Your task to perform on an android device: turn off priority inbox in the gmail app Image 0: 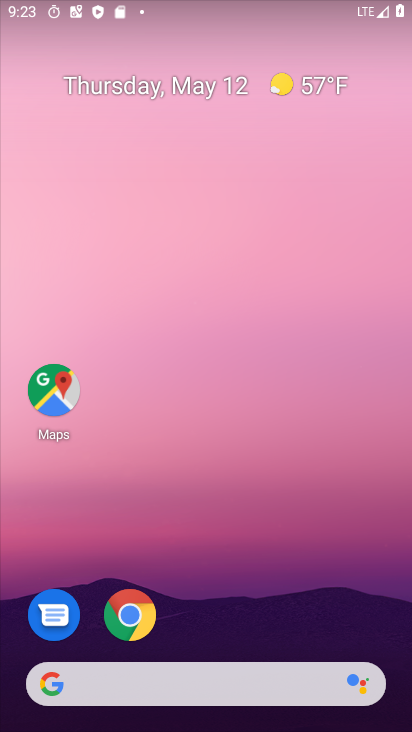
Step 0: drag from (251, 536) to (223, 21)
Your task to perform on an android device: turn off priority inbox in the gmail app Image 1: 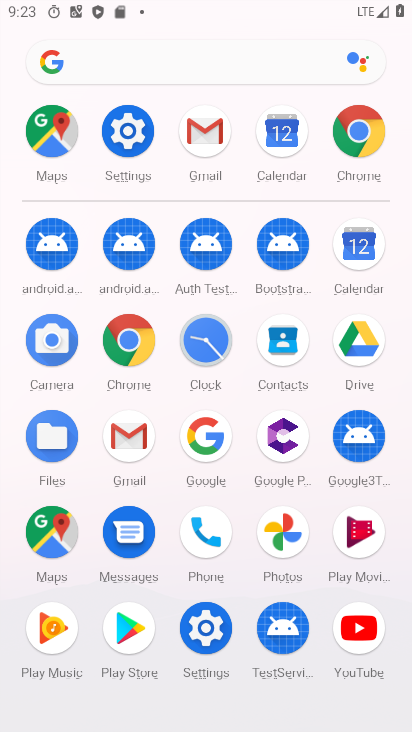
Step 1: drag from (11, 546) to (2, 211)
Your task to perform on an android device: turn off priority inbox in the gmail app Image 2: 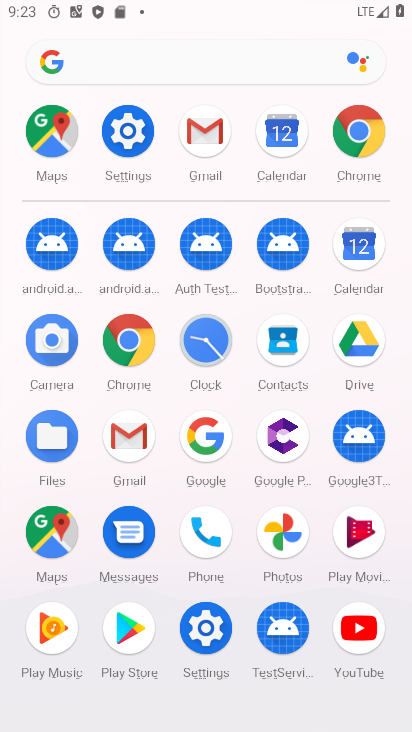
Step 2: click (128, 430)
Your task to perform on an android device: turn off priority inbox in the gmail app Image 3: 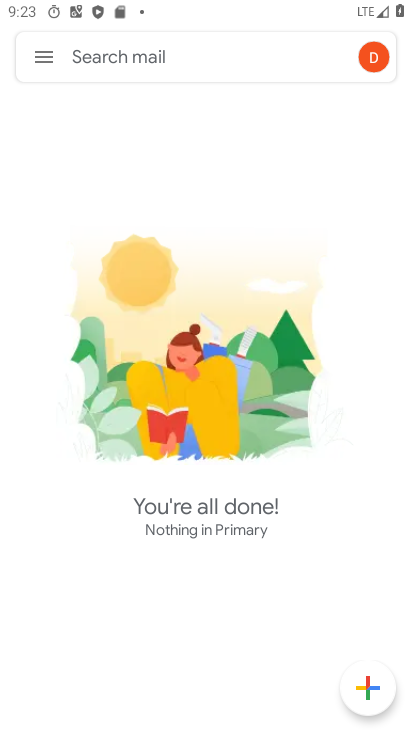
Step 3: click (41, 46)
Your task to perform on an android device: turn off priority inbox in the gmail app Image 4: 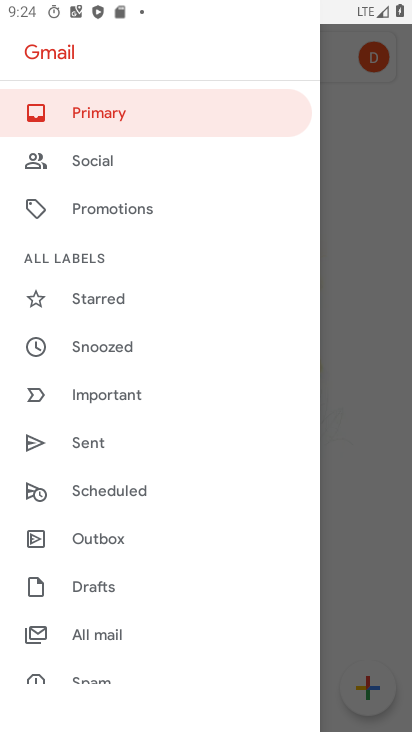
Step 4: drag from (179, 615) to (199, 242)
Your task to perform on an android device: turn off priority inbox in the gmail app Image 5: 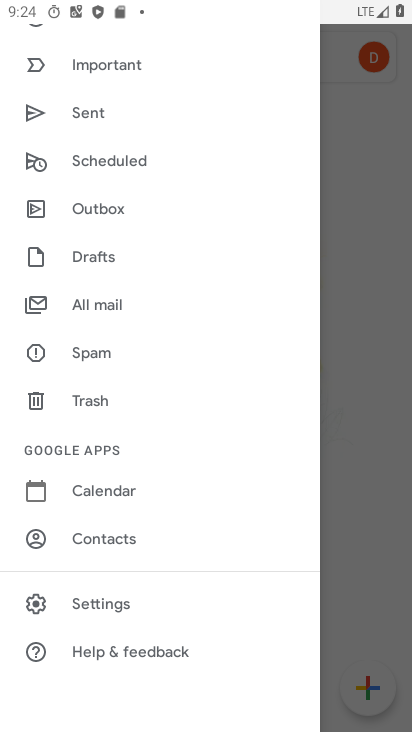
Step 5: click (97, 596)
Your task to perform on an android device: turn off priority inbox in the gmail app Image 6: 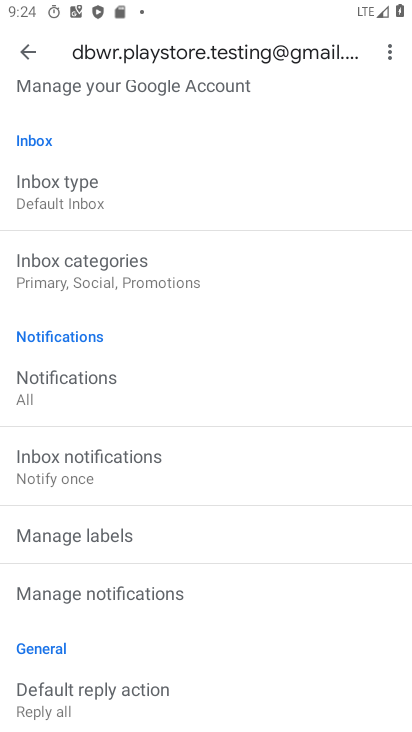
Step 6: click (117, 191)
Your task to perform on an android device: turn off priority inbox in the gmail app Image 7: 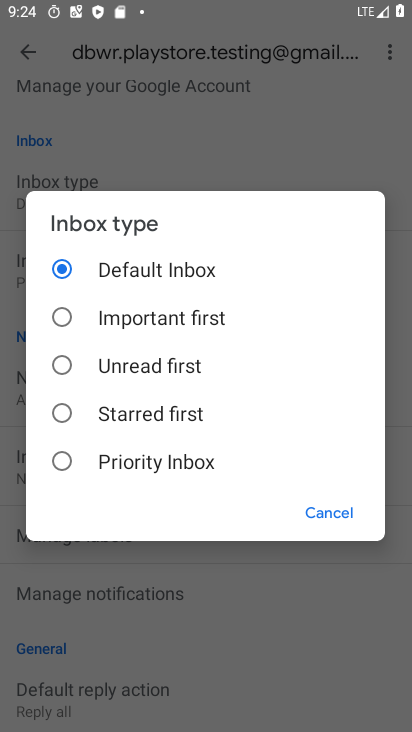
Step 7: click (332, 508)
Your task to perform on an android device: turn off priority inbox in the gmail app Image 8: 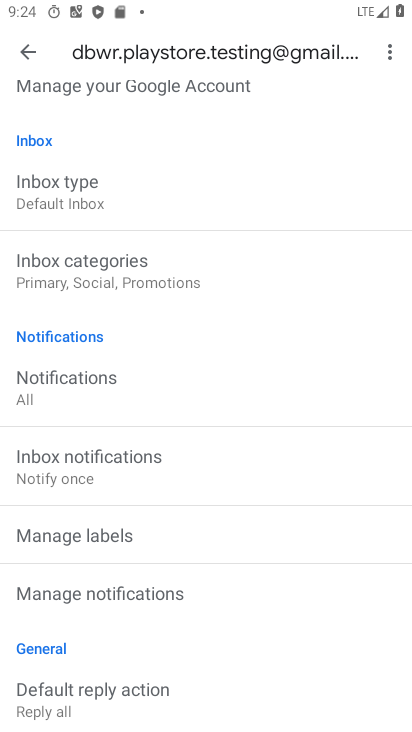
Step 8: task complete